Your task to perform on an android device: open app "DuckDuckGo Privacy Browser" Image 0: 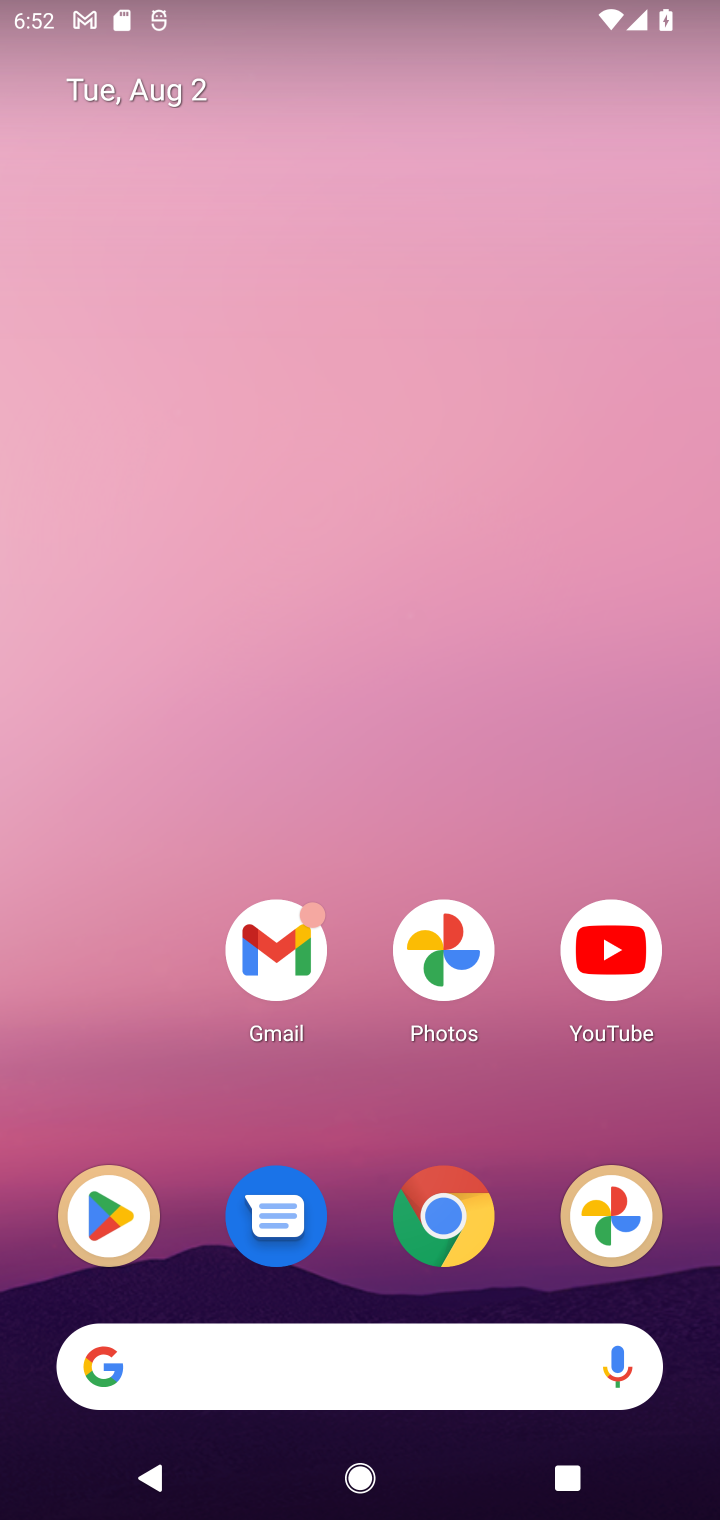
Step 0: press home button
Your task to perform on an android device: open app "DuckDuckGo Privacy Browser" Image 1: 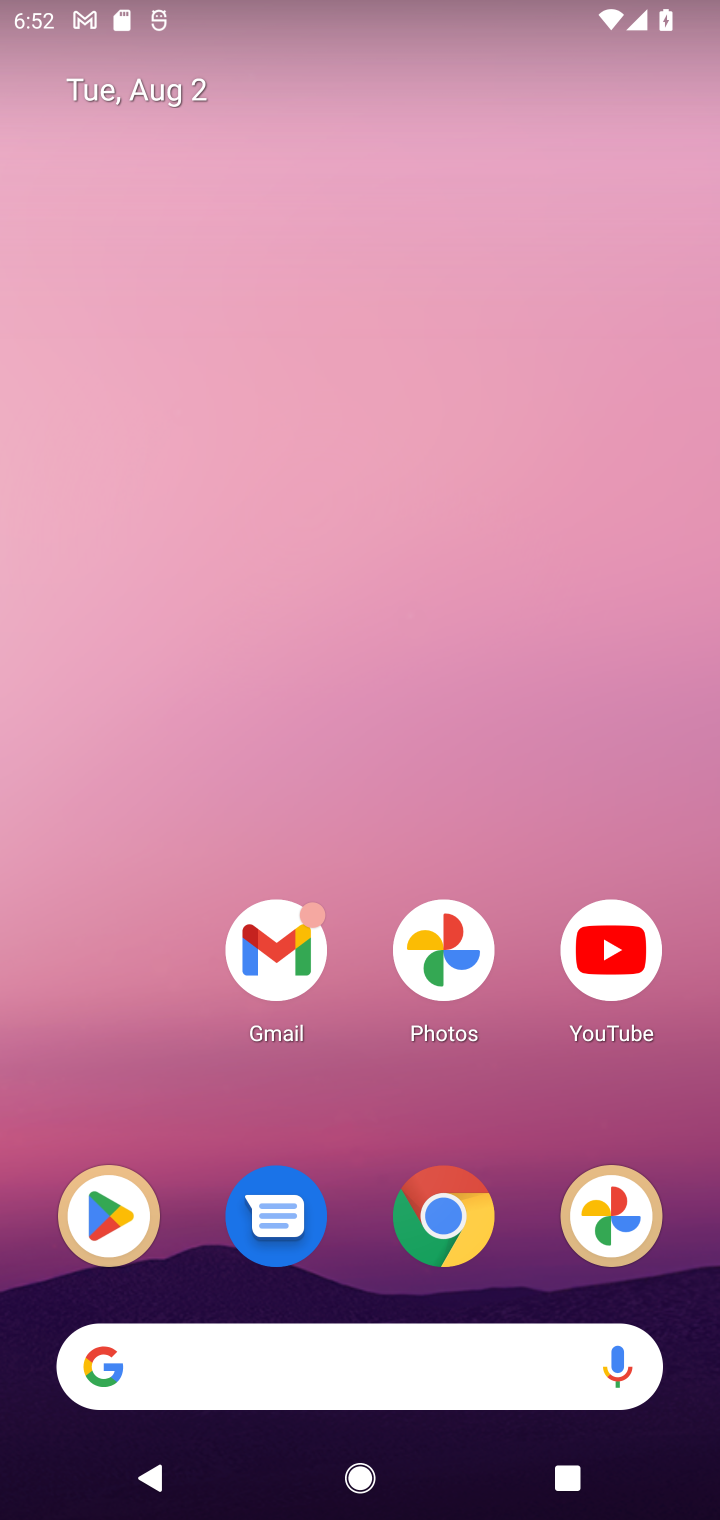
Step 1: click (105, 1219)
Your task to perform on an android device: open app "DuckDuckGo Privacy Browser" Image 2: 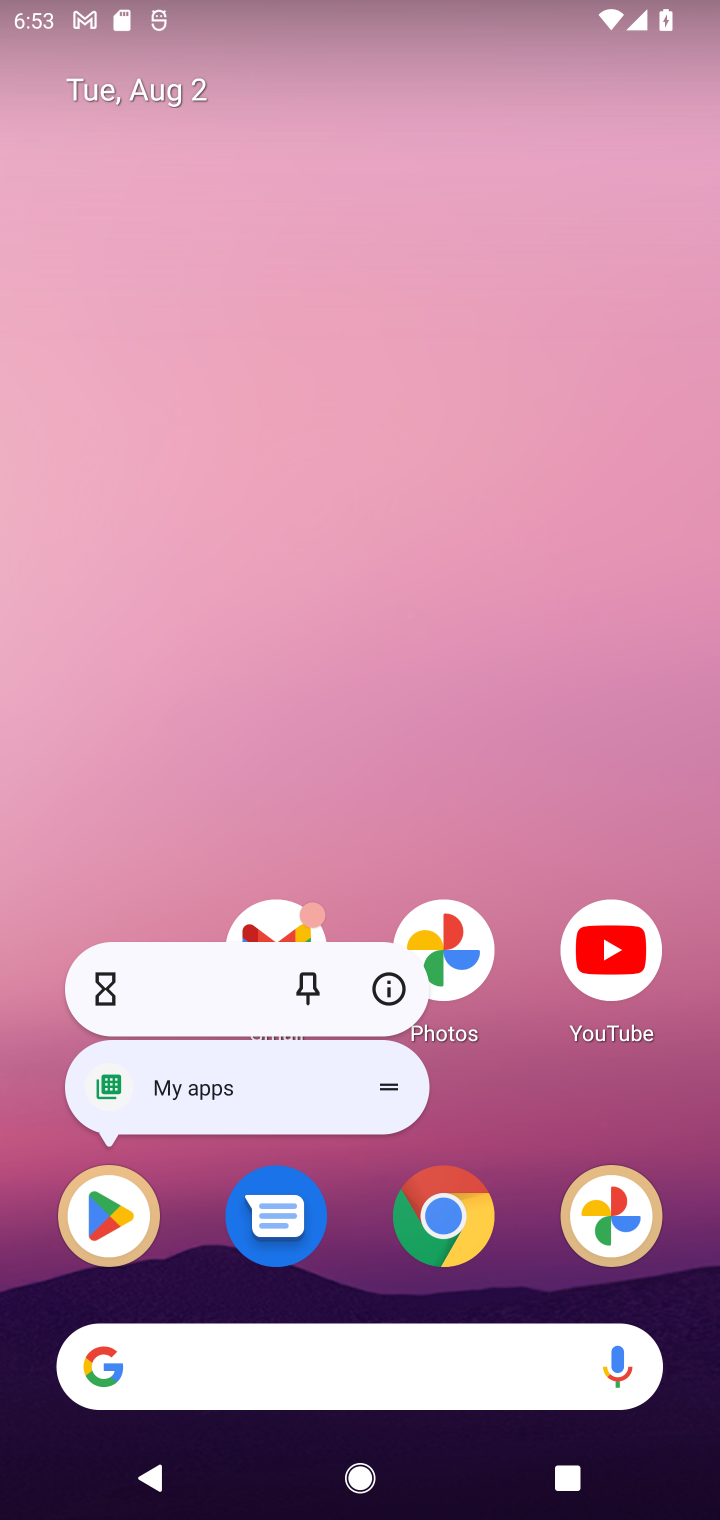
Step 2: click (113, 1207)
Your task to perform on an android device: open app "DuckDuckGo Privacy Browser" Image 3: 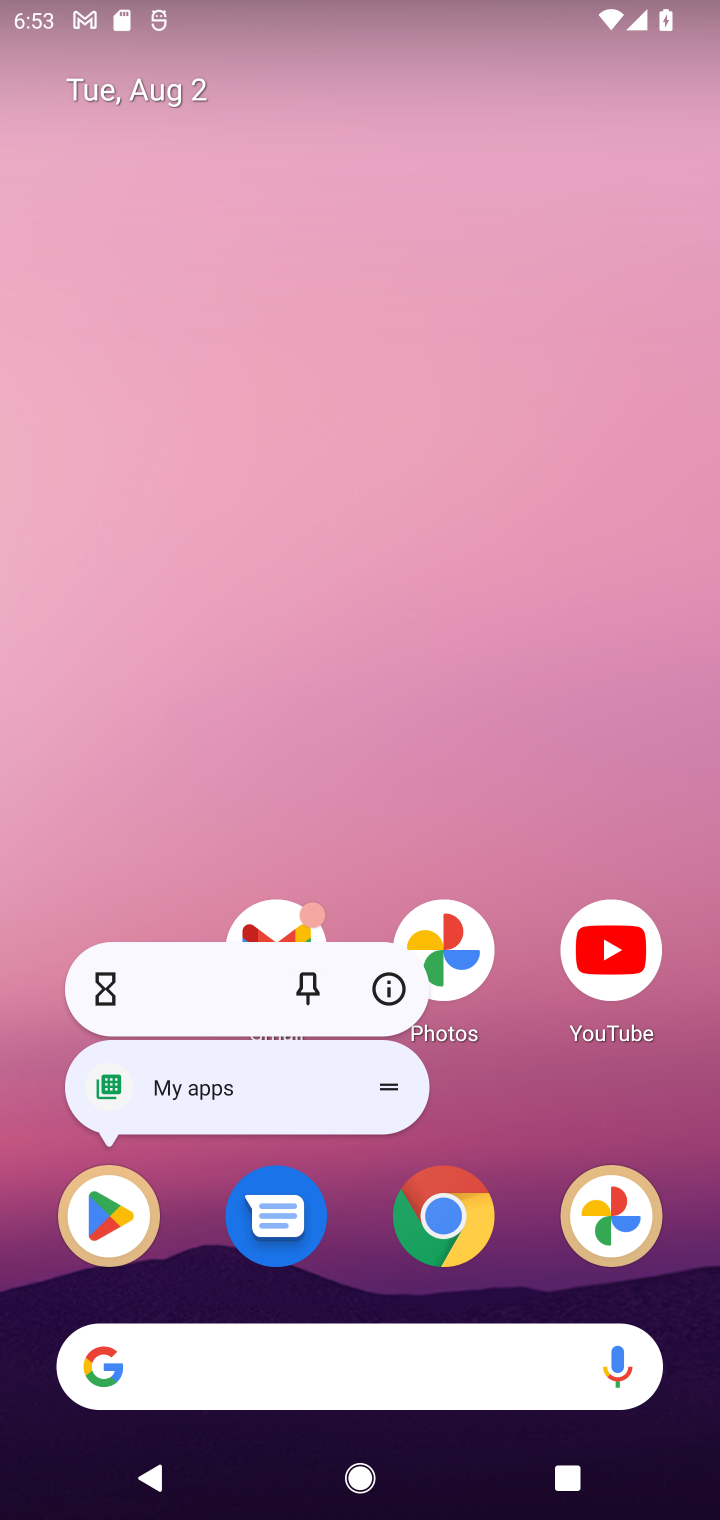
Step 3: click (94, 1224)
Your task to perform on an android device: open app "DuckDuckGo Privacy Browser" Image 4: 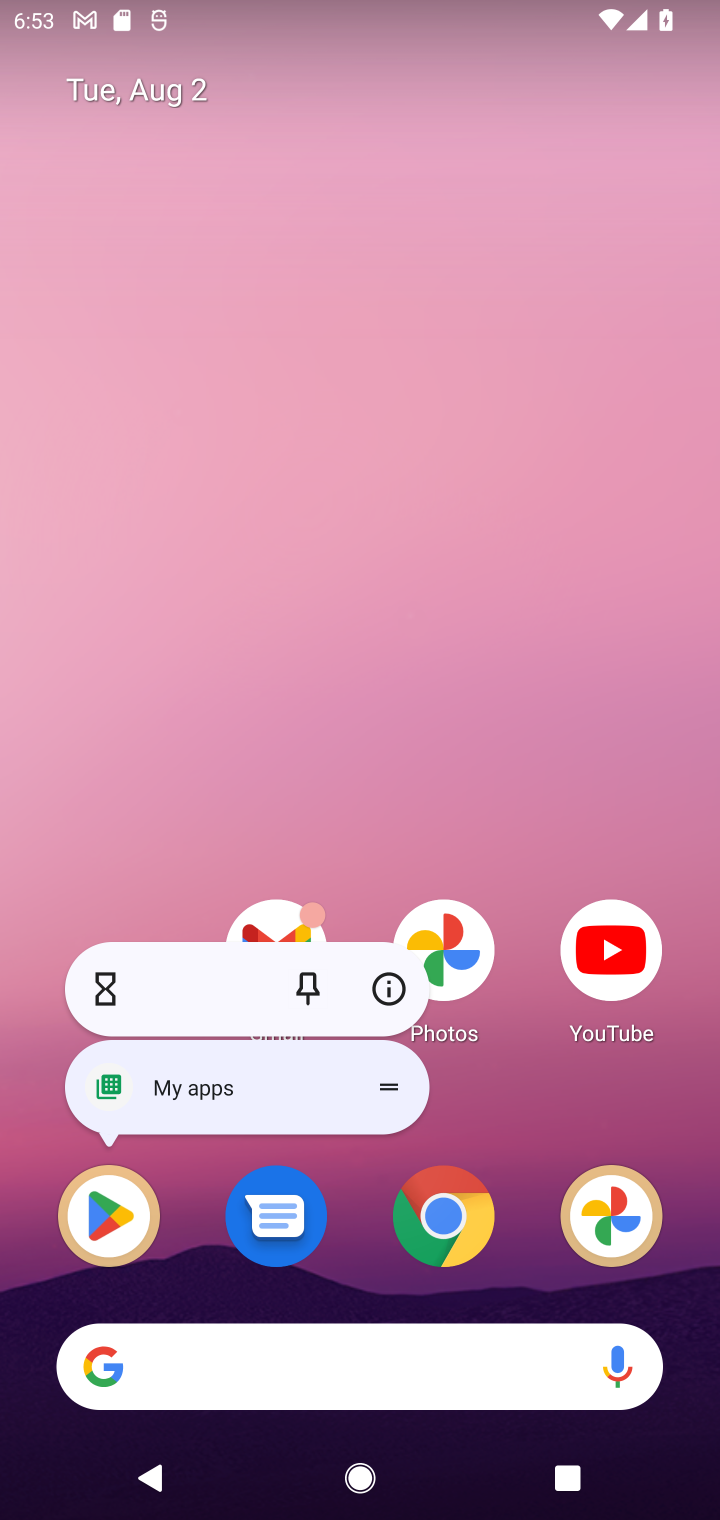
Step 4: click (94, 1229)
Your task to perform on an android device: open app "DuckDuckGo Privacy Browser" Image 5: 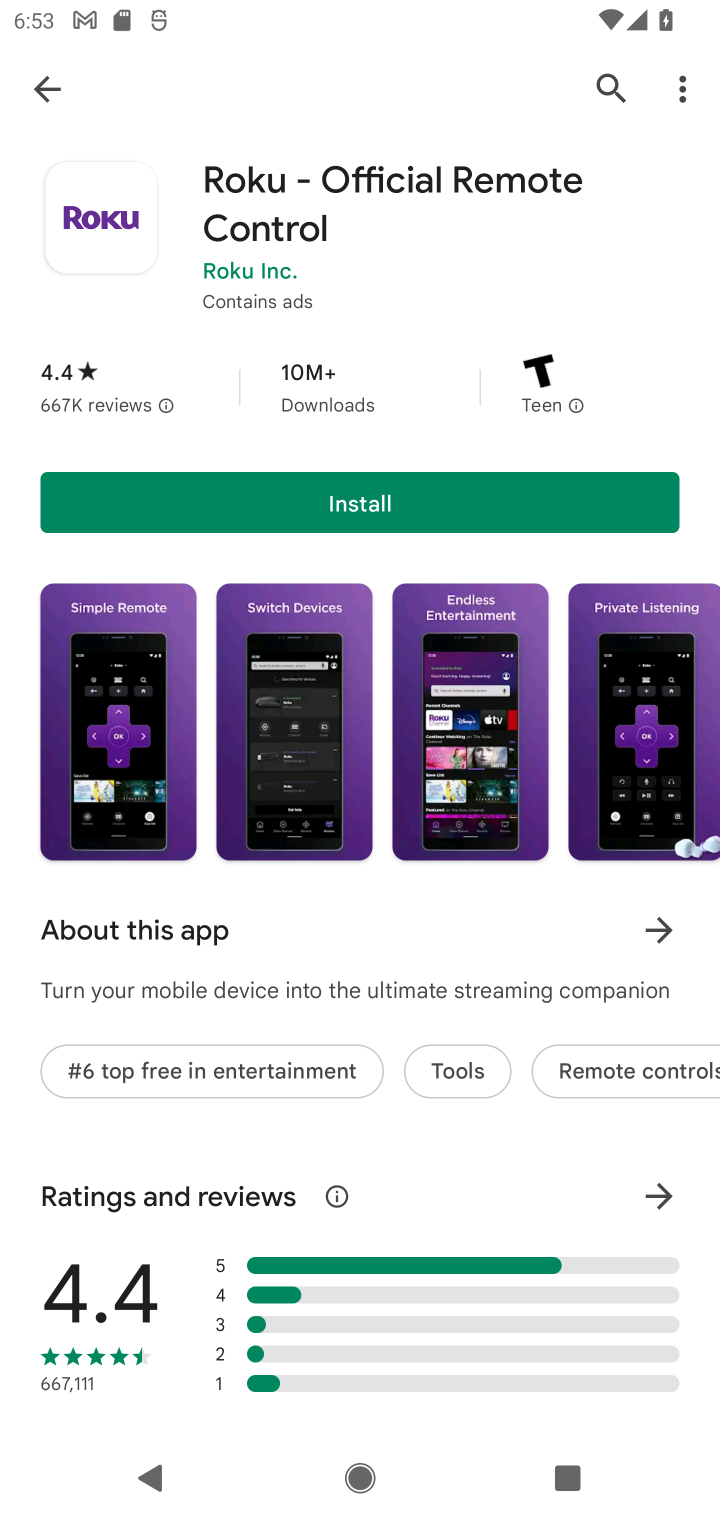
Step 5: click (597, 79)
Your task to perform on an android device: open app "DuckDuckGo Privacy Browser" Image 6: 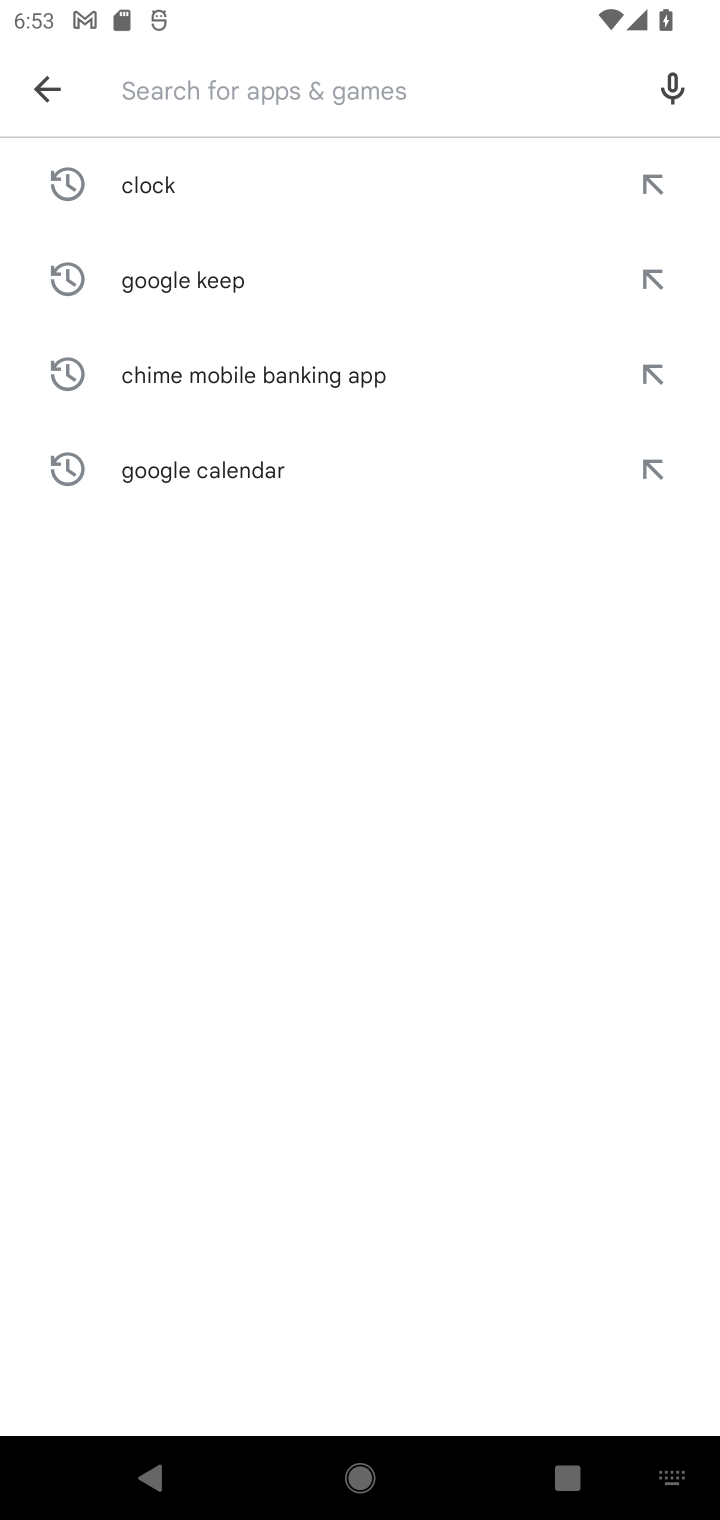
Step 6: type "DuckDuckGo Privacy Browser"
Your task to perform on an android device: open app "DuckDuckGo Privacy Browser" Image 7: 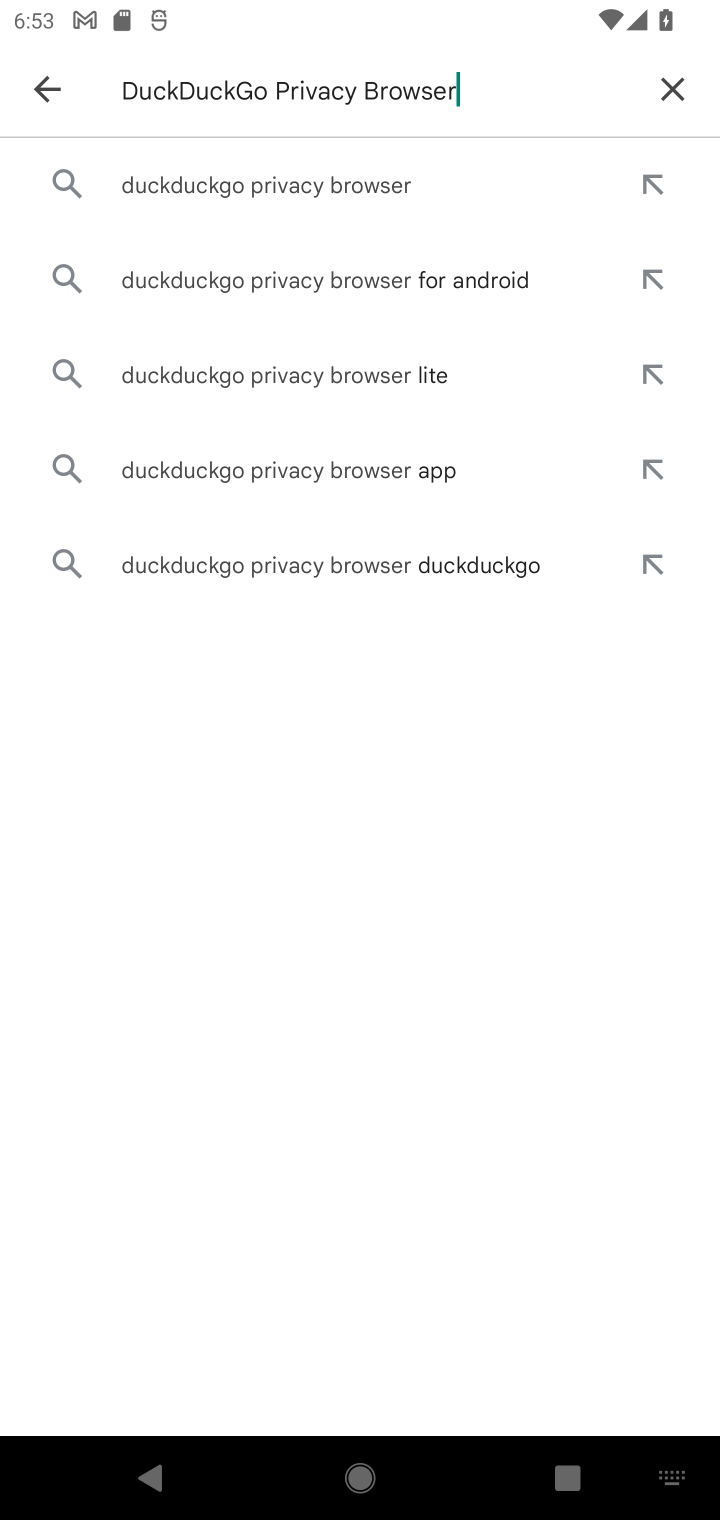
Step 7: click (278, 184)
Your task to perform on an android device: open app "DuckDuckGo Privacy Browser" Image 8: 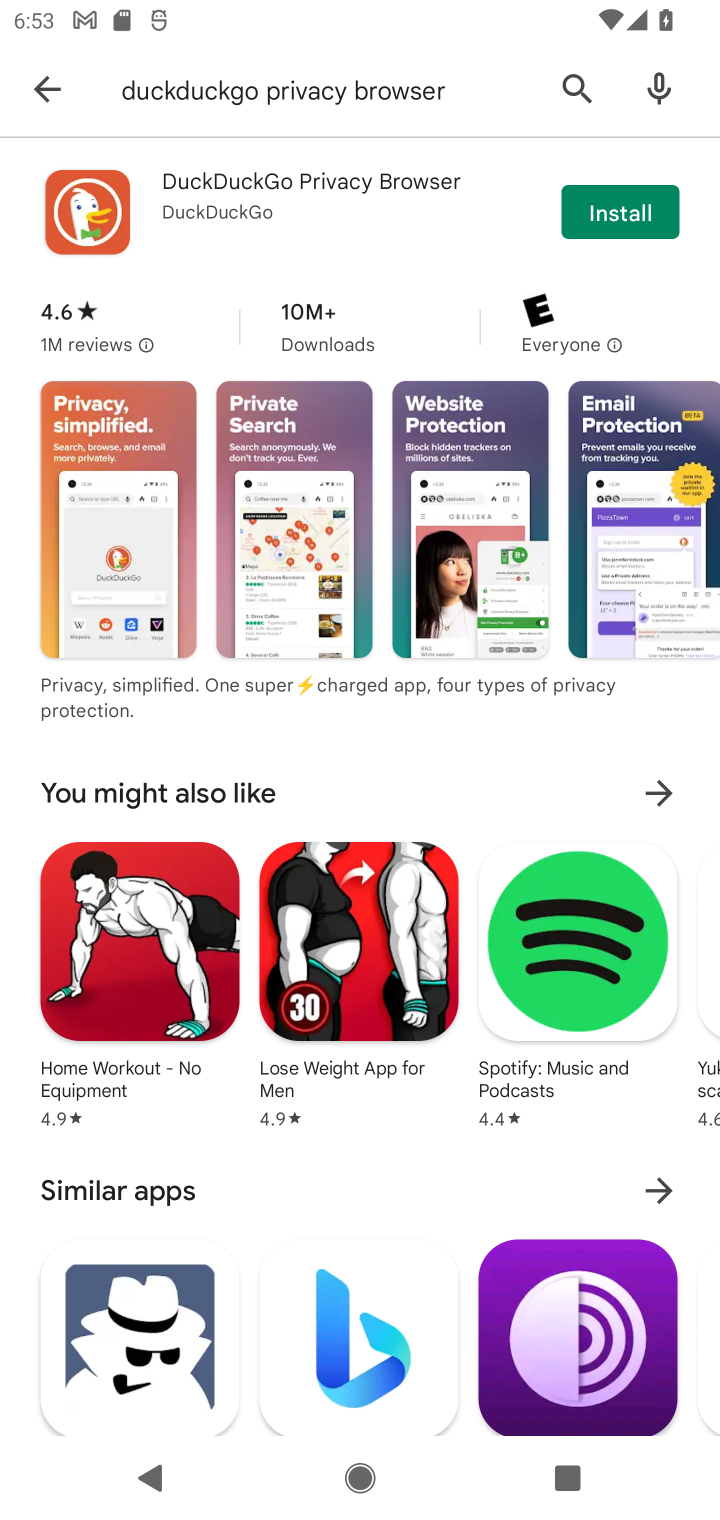
Step 8: task complete